Your task to perform on an android device: What's on my calendar today? Image 0: 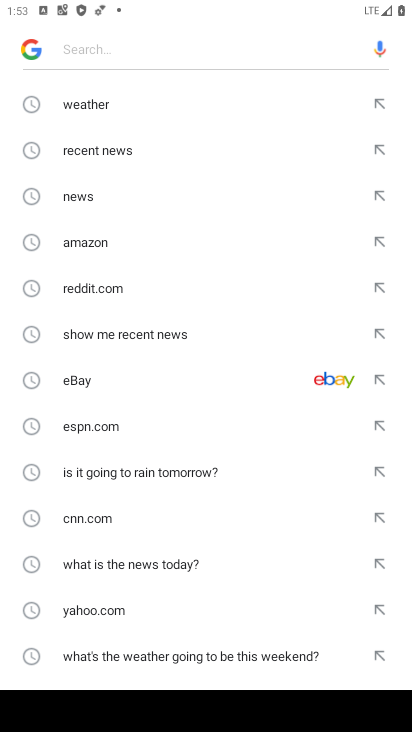
Step 0: press home button
Your task to perform on an android device: What's on my calendar today? Image 1: 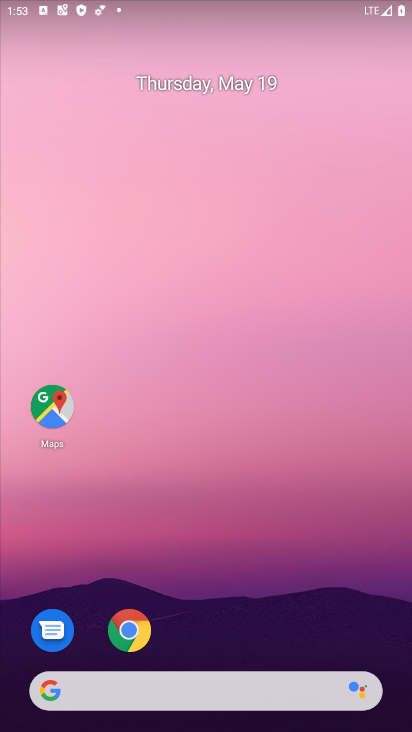
Step 1: drag from (383, 625) to (353, 107)
Your task to perform on an android device: What's on my calendar today? Image 2: 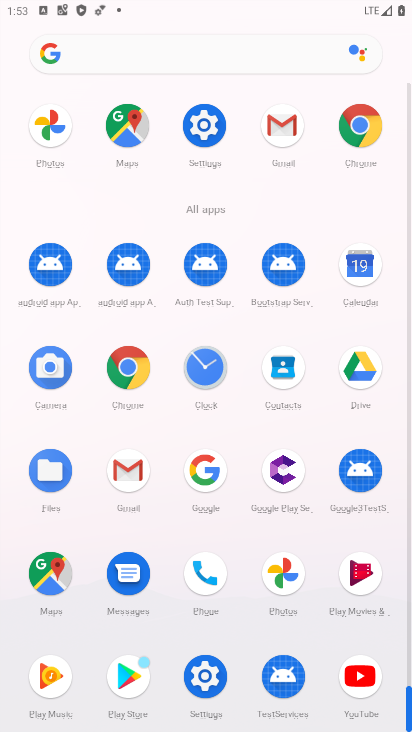
Step 2: click (358, 265)
Your task to perform on an android device: What's on my calendar today? Image 3: 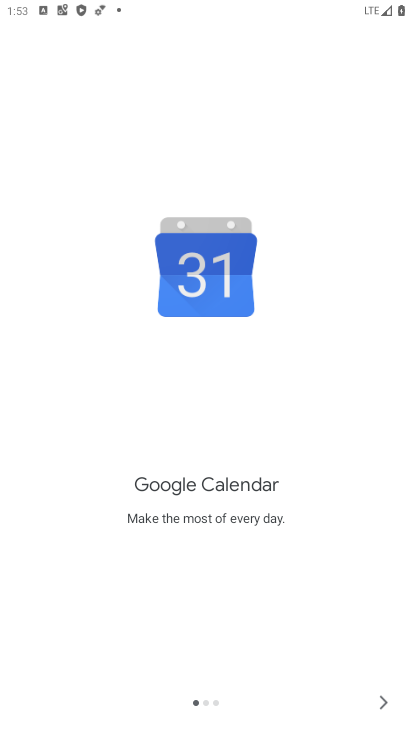
Step 3: click (381, 703)
Your task to perform on an android device: What's on my calendar today? Image 4: 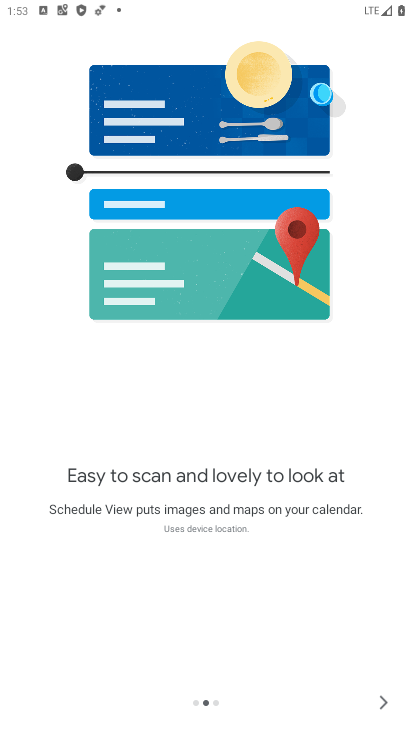
Step 4: click (381, 703)
Your task to perform on an android device: What's on my calendar today? Image 5: 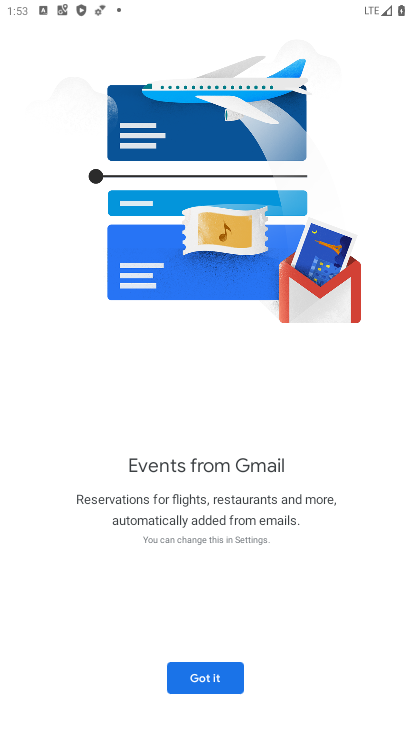
Step 5: click (203, 684)
Your task to perform on an android device: What's on my calendar today? Image 6: 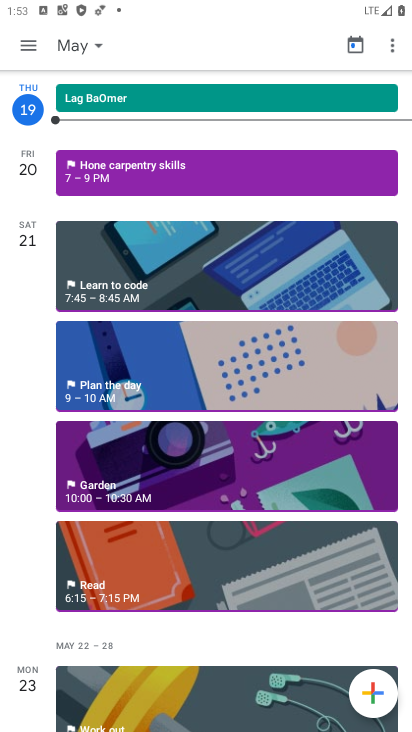
Step 6: click (32, 38)
Your task to perform on an android device: What's on my calendar today? Image 7: 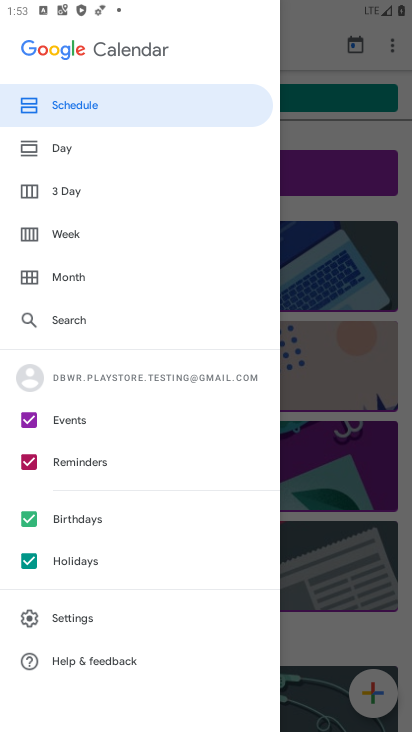
Step 7: click (61, 147)
Your task to perform on an android device: What's on my calendar today? Image 8: 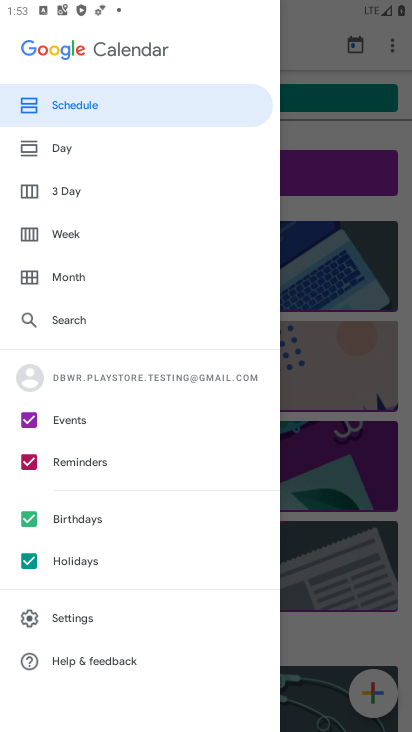
Step 8: click (67, 149)
Your task to perform on an android device: What's on my calendar today? Image 9: 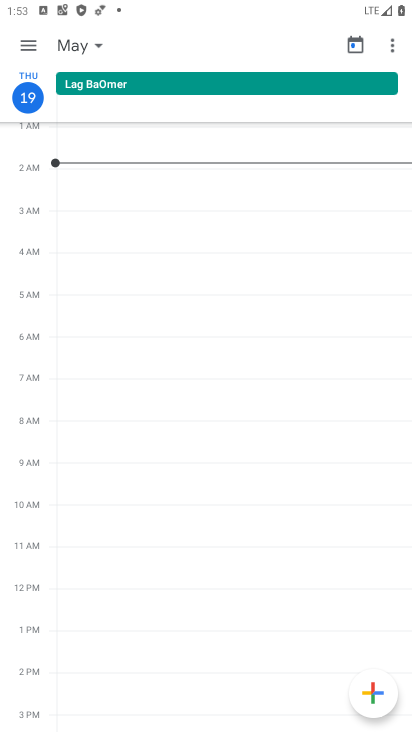
Step 9: task complete